Your task to perform on an android device: What's on my calendar tomorrow? Image 0: 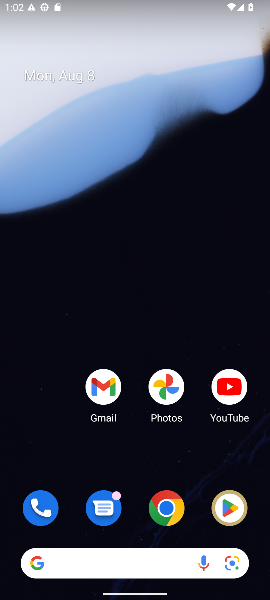
Step 0: drag from (126, 451) to (132, 141)
Your task to perform on an android device: What's on my calendar tomorrow? Image 1: 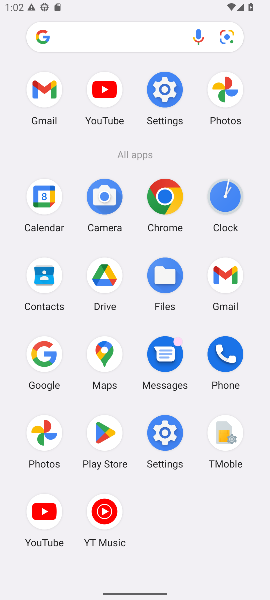
Step 1: click (43, 207)
Your task to perform on an android device: What's on my calendar tomorrow? Image 2: 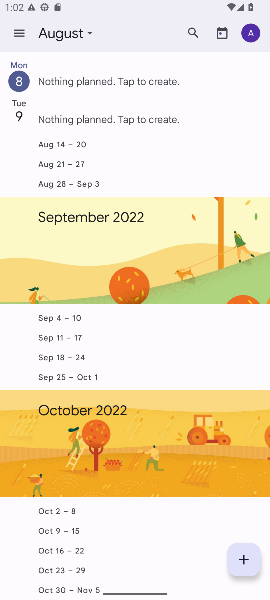
Step 2: task complete